Your task to perform on an android device: turn vacation reply on in the gmail app Image 0: 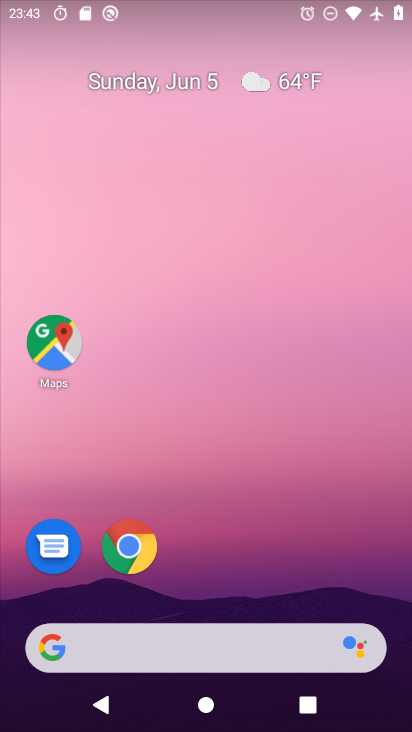
Step 0: drag from (183, 617) to (224, 66)
Your task to perform on an android device: turn vacation reply on in the gmail app Image 1: 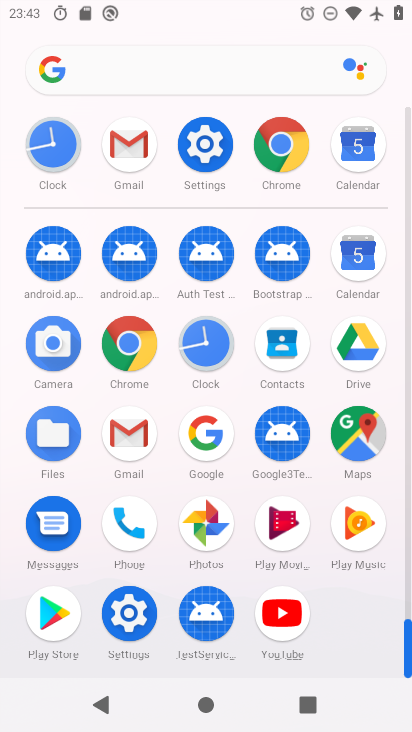
Step 1: click (135, 454)
Your task to perform on an android device: turn vacation reply on in the gmail app Image 2: 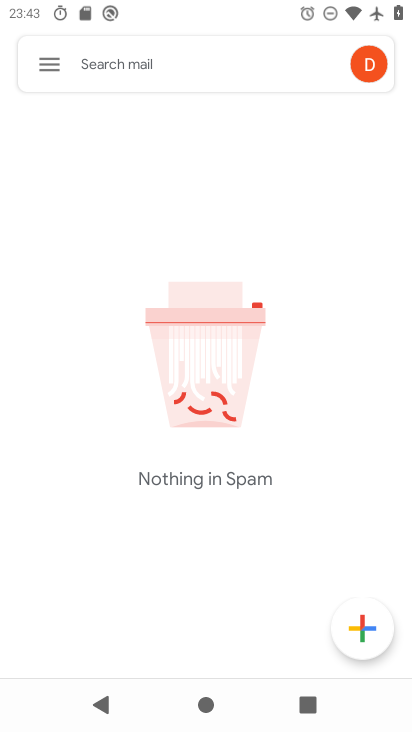
Step 2: click (43, 67)
Your task to perform on an android device: turn vacation reply on in the gmail app Image 3: 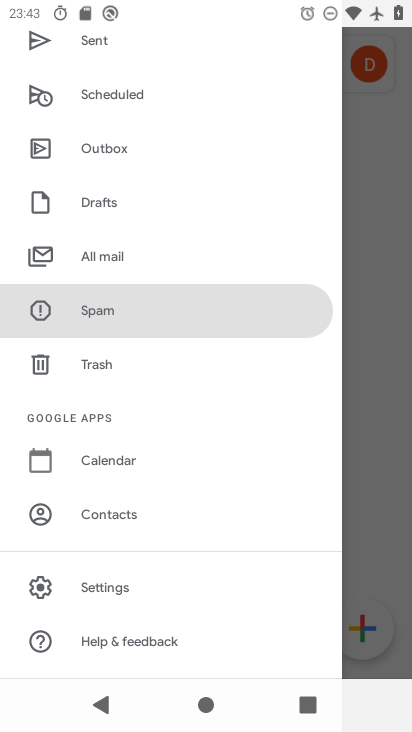
Step 3: drag from (141, 602) to (181, 165)
Your task to perform on an android device: turn vacation reply on in the gmail app Image 4: 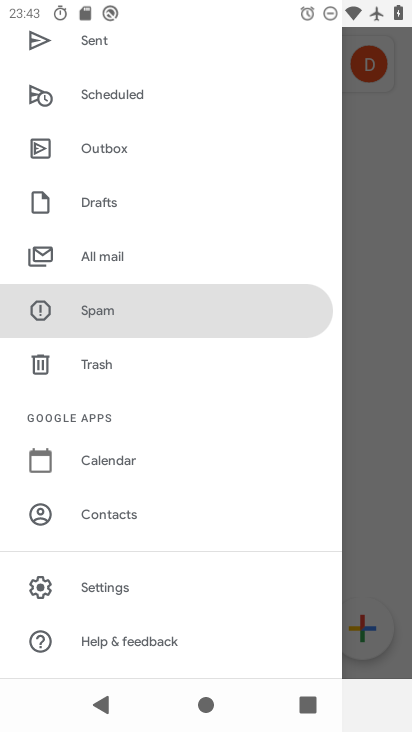
Step 4: click (132, 593)
Your task to perform on an android device: turn vacation reply on in the gmail app Image 5: 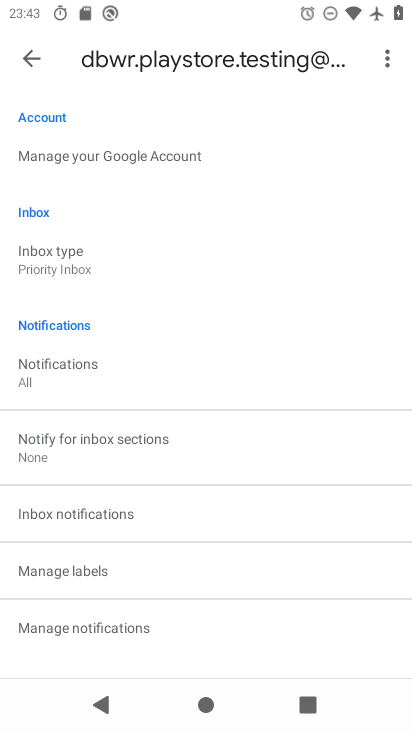
Step 5: drag from (161, 262) to (244, 717)
Your task to perform on an android device: turn vacation reply on in the gmail app Image 6: 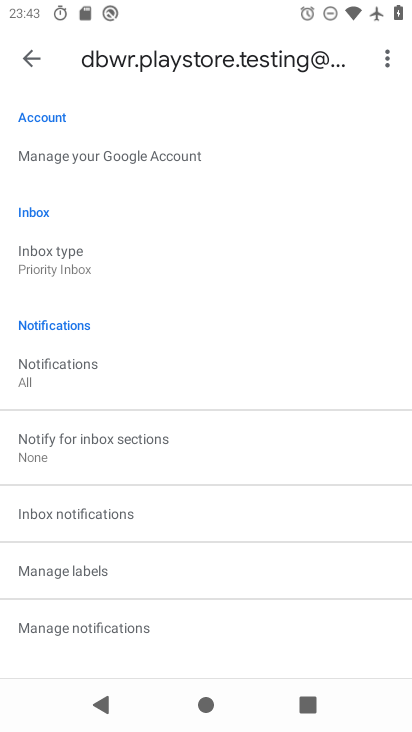
Step 6: drag from (191, 599) to (204, 225)
Your task to perform on an android device: turn vacation reply on in the gmail app Image 7: 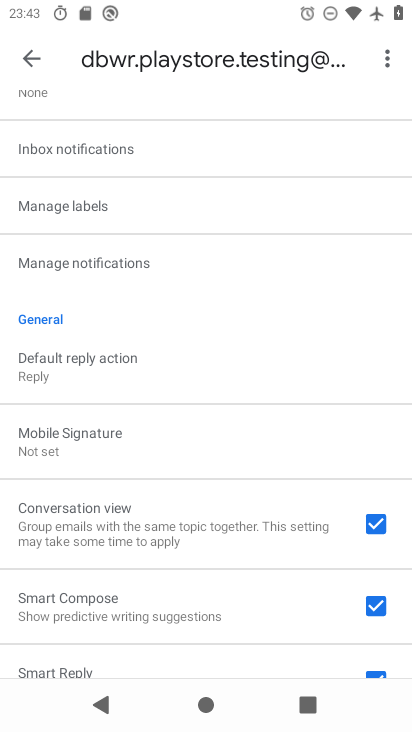
Step 7: drag from (141, 234) to (233, 704)
Your task to perform on an android device: turn vacation reply on in the gmail app Image 8: 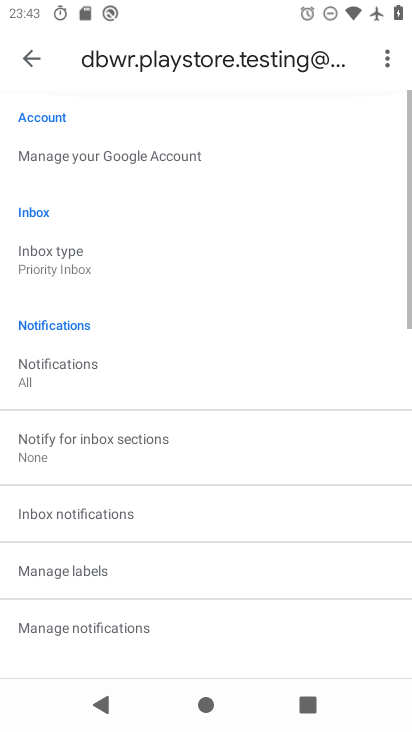
Step 8: drag from (195, 539) to (262, 71)
Your task to perform on an android device: turn vacation reply on in the gmail app Image 9: 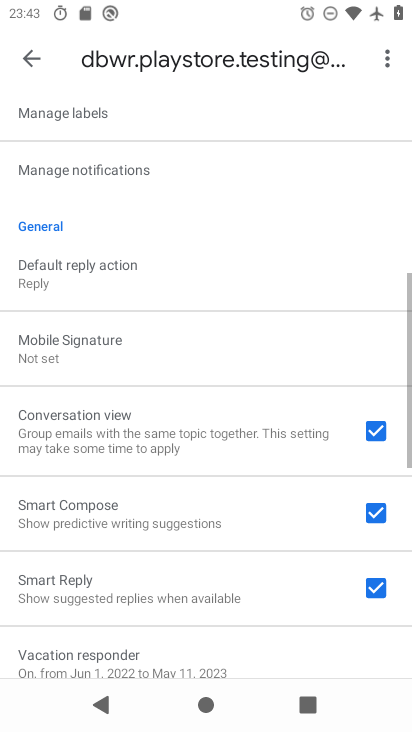
Step 9: drag from (187, 473) to (249, 100)
Your task to perform on an android device: turn vacation reply on in the gmail app Image 10: 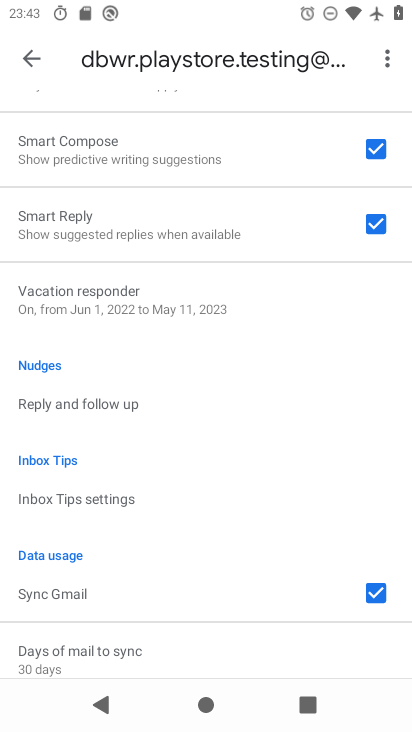
Step 10: click (159, 301)
Your task to perform on an android device: turn vacation reply on in the gmail app Image 11: 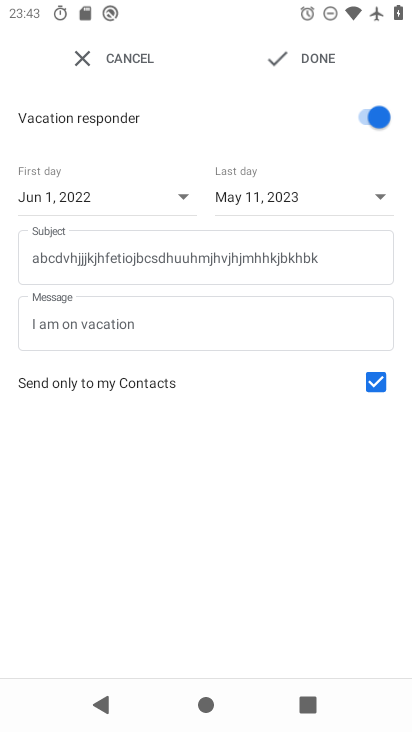
Step 11: click (260, 168)
Your task to perform on an android device: turn vacation reply on in the gmail app Image 12: 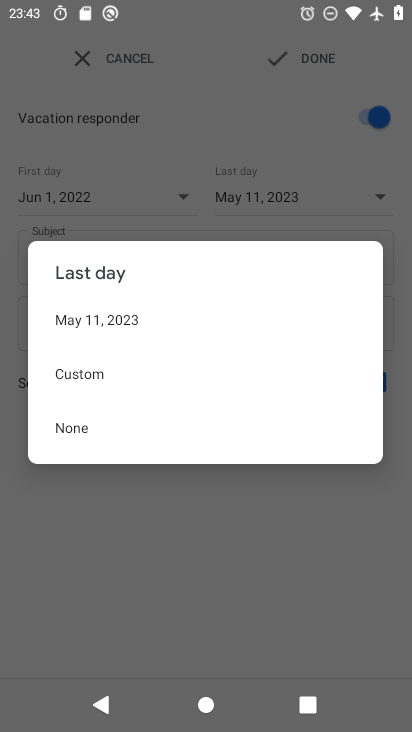
Step 12: click (295, 53)
Your task to perform on an android device: turn vacation reply on in the gmail app Image 13: 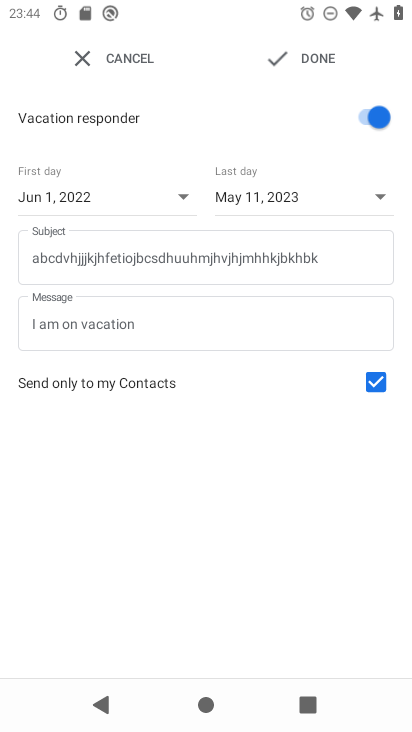
Step 13: click (297, 54)
Your task to perform on an android device: turn vacation reply on in the gmail app Image 14: 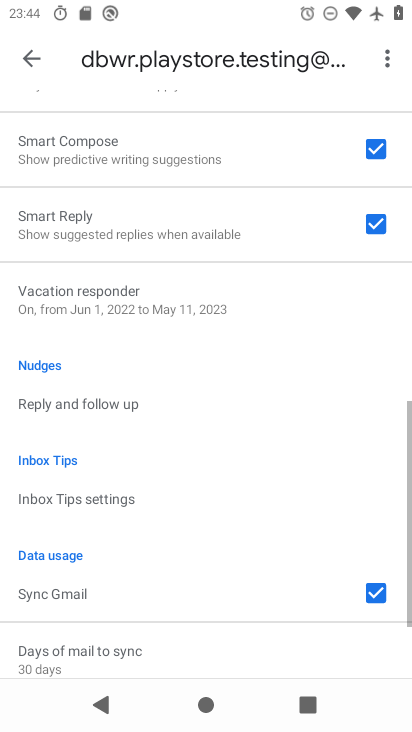
Step 14: task complete